Your task to perform on an android device: Go to Google Image 0: 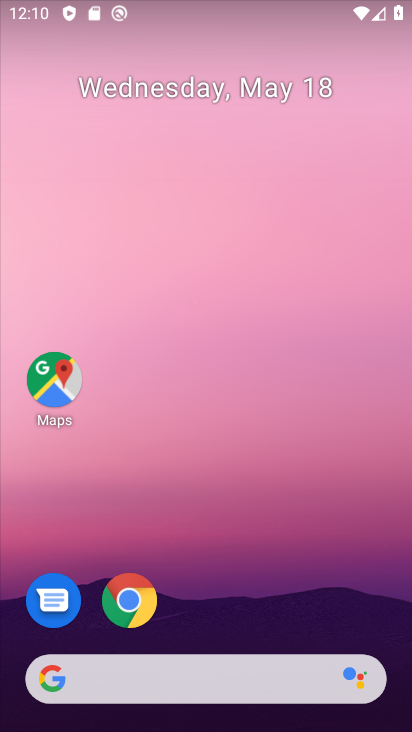
Step 0: drag from (166, 664) to (143, 151)
Your task to perform on an android device: Go to Google Image 1: 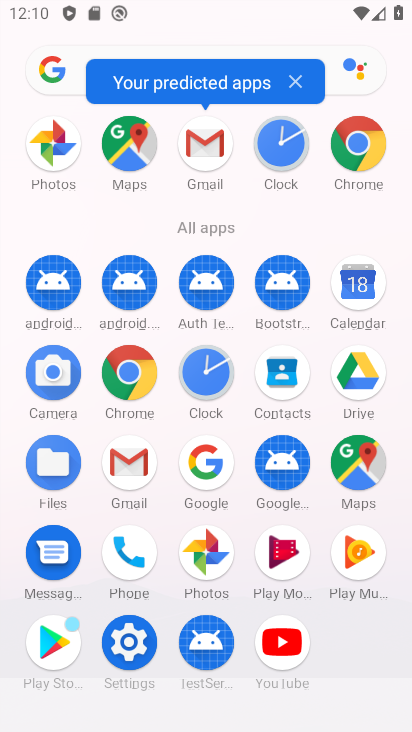
Step 1: click (197, 464)
Your task to perform on an android device: Go to Google Image 2: 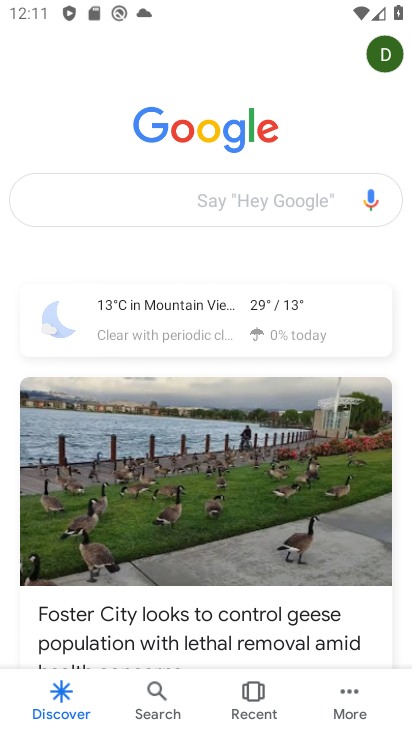
Step 2: task complete